Your task to perform on an android device: Open ESPN.com Image 0: 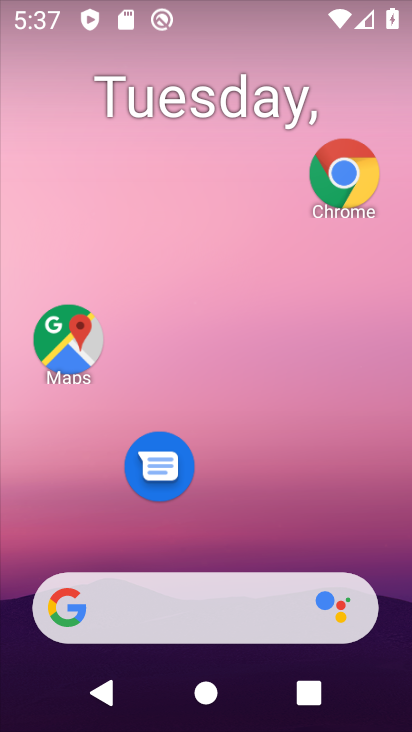
Step 0: drag from (285, 521) to (286, 389)
Your task to perform on an android device: Open ESPN.com Image 1: 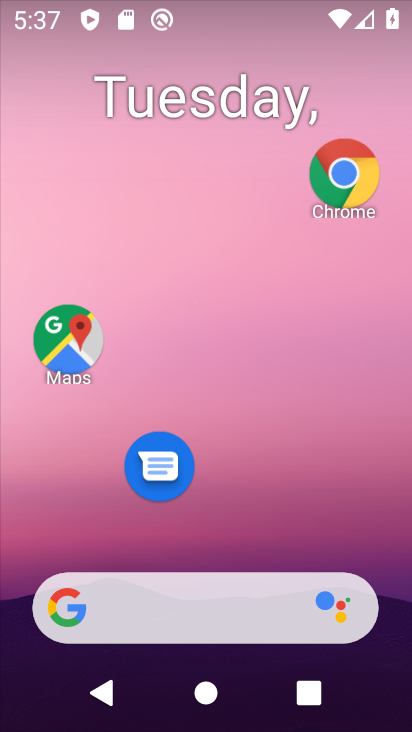
Step 1: click (359, 177)
Your task to perform on an android device: Open ESPN.com Image 2: 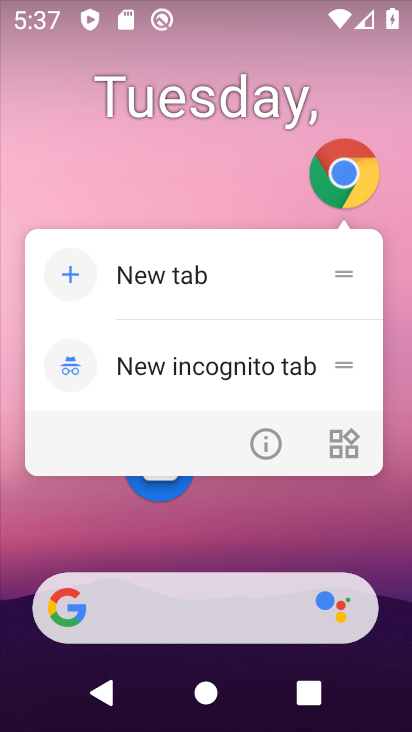
Step 2: click (359, 177)
Your task to perform on an android device: Open ESPN.com Image 3: 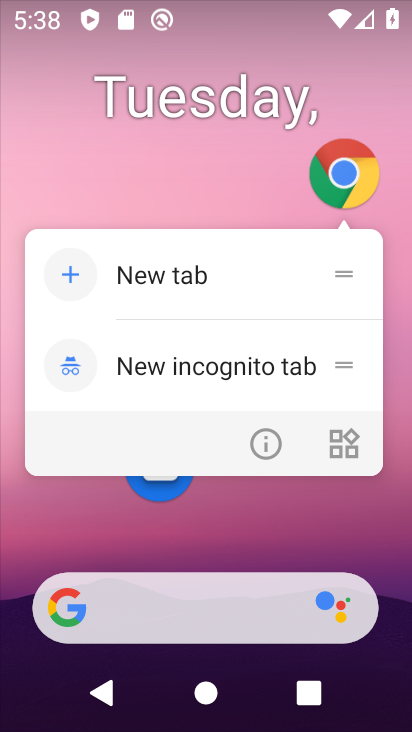
Step 3: click (359, 177)
Your task to perform on an android device: Open ESPN.com Image 4: 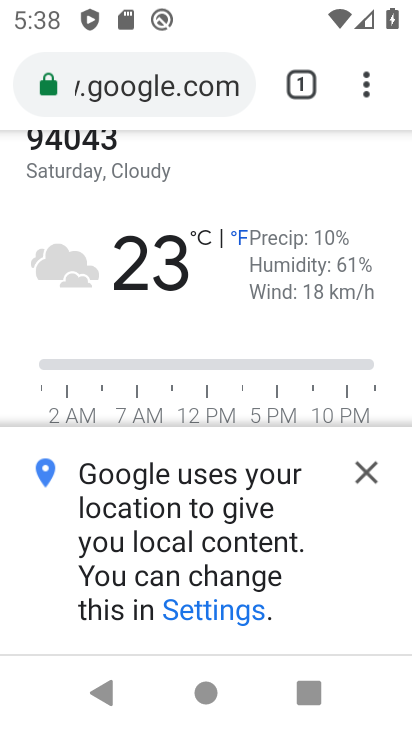
Step 4: drag from (365, 60) to (175, 162)
Your task to perform on an android device: Open ESPN.com Image 5: 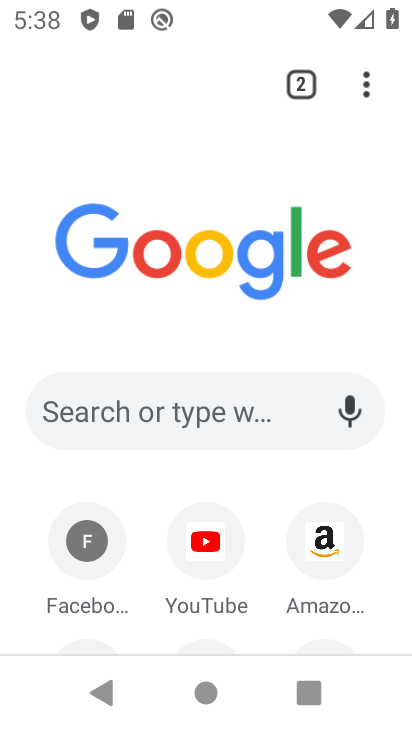
Step 5: drag from (245, 552) to (275, 250)
Your task to perform on an android device: Open ESPN.com Image 6: 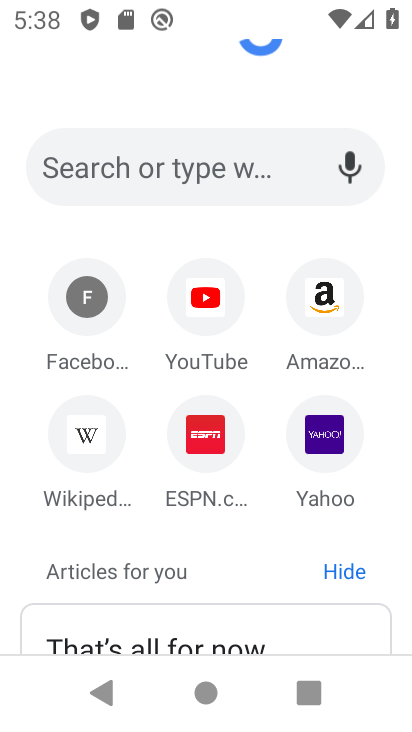
Step 6: click (209, 463)
Your task to perform on an android device: Open ESPN.com Image 7: 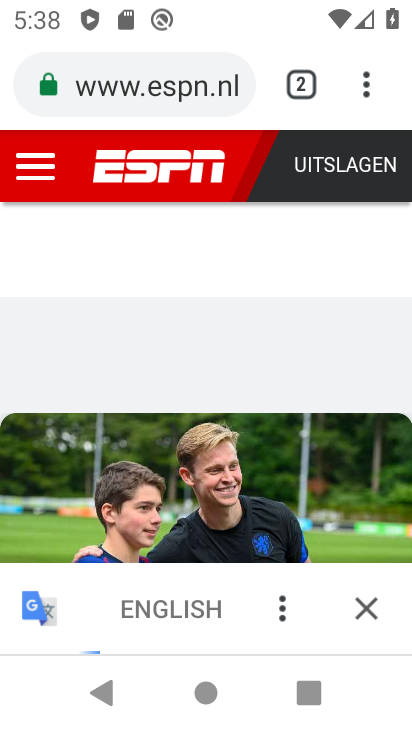
Step 7: task complete